Your task to perform on an android device: Go to Yahoo.com Image 0: 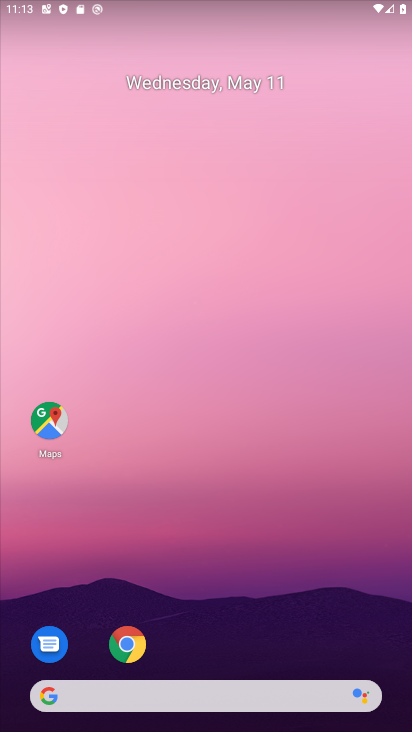
Step 0: drag from (207, 635) to (220, 1)
Your task to perform on an android device: Go to Yahoo.com Image 1: 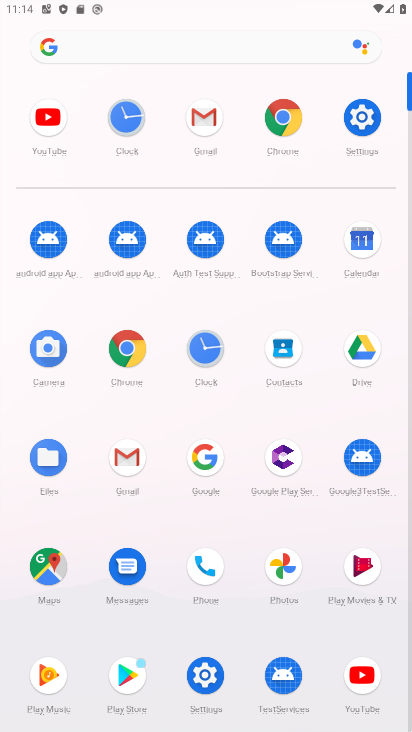
Step 1: click (297, 133)
Your task to perform on an android device: Go to Yahoo.com Image 2: 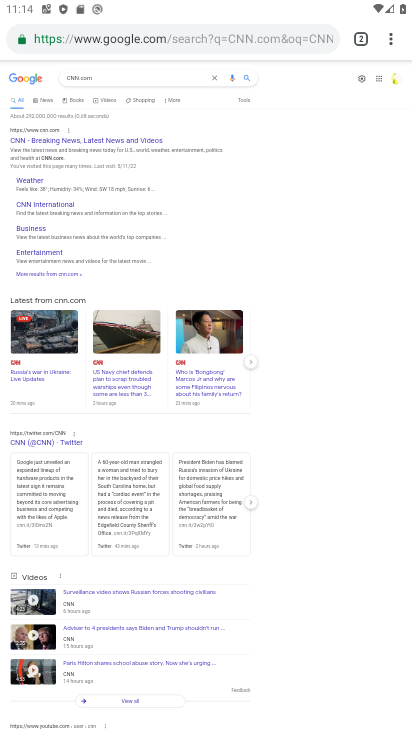
Step 2: click (364, 40)
Your task to perform on an android device: Go to Yahoo.com Image 3: 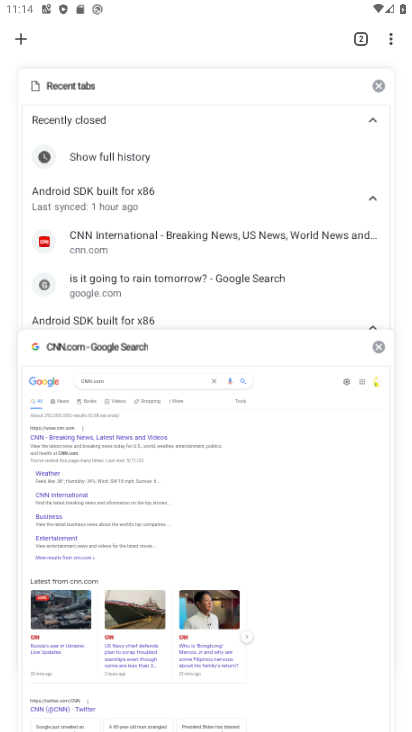
Step 3: click (23, 49)
Your task to perform on an android device: Go to Yahoo.com Image 4: 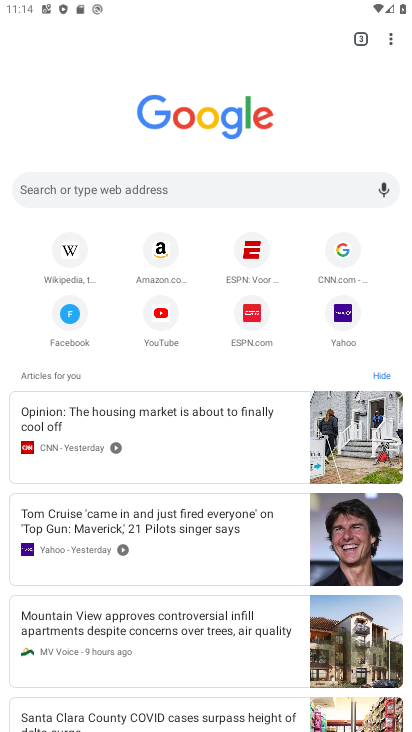
Step 4: click (340, 320)
Your task to perform on an android device: Go to Yahoo.com Image 5: 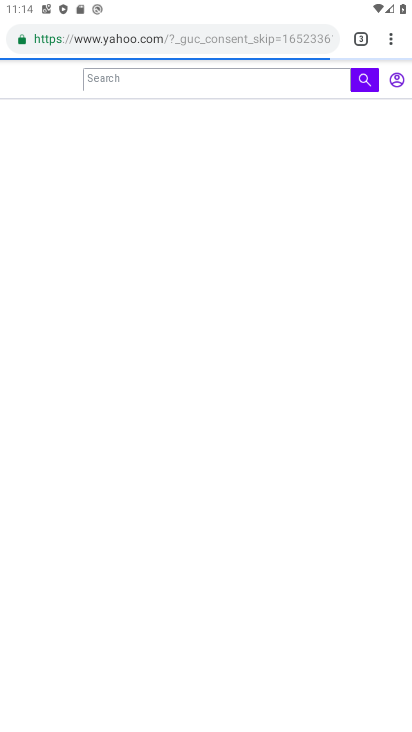
Step 5: task complete